Your task to perform on an android device: toggle show notifications on the lock screen Image 0: 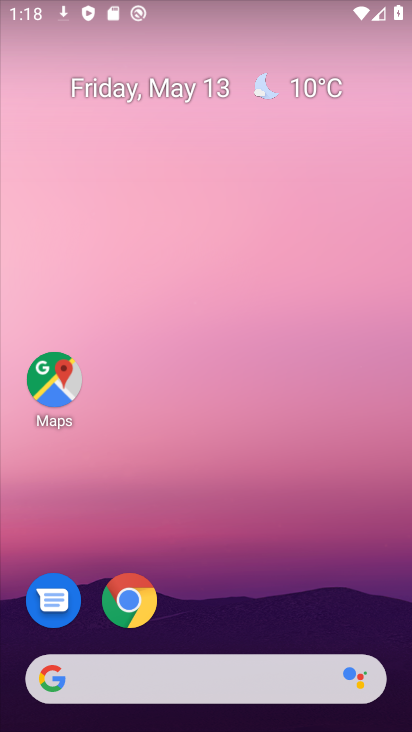
Step 0: drag from (209, 653) to (317, 117)
Your task to perform on an android device: toggle show notifications on the lock screen Image 1: 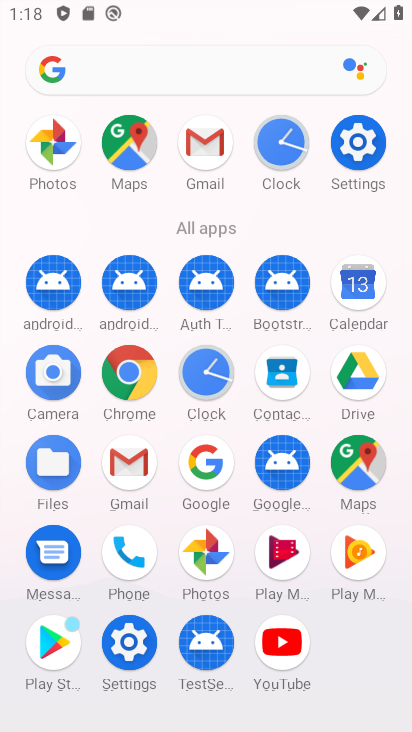
Step 1: click (124, 648)
Your task to perform on an android device: toggle show notifications on the lock screen Image 2: 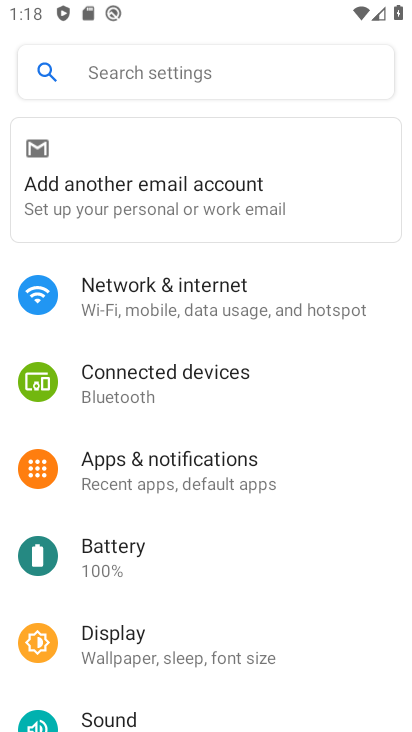
Step 2: click (221, 469)
Your task to perform on an android device: toggle show notifications on the lock screen Image 3: 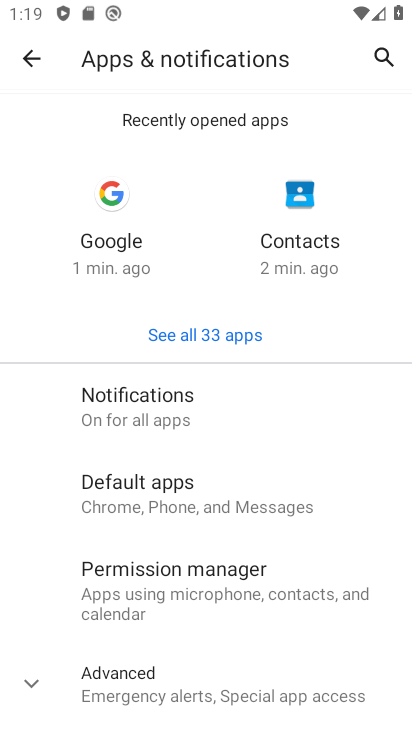
Step 3: drag from (255, 665) to (324, 429)
Your task to perform on an android device: toggle show notifications on the lock screen Image 4: 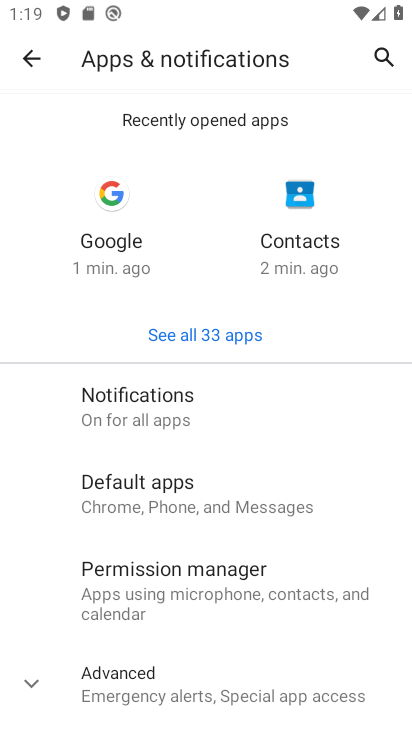
Step 4: click (207, 389)
Your task to perform on an android device: toggle show notifications on the lock screen Image 5: 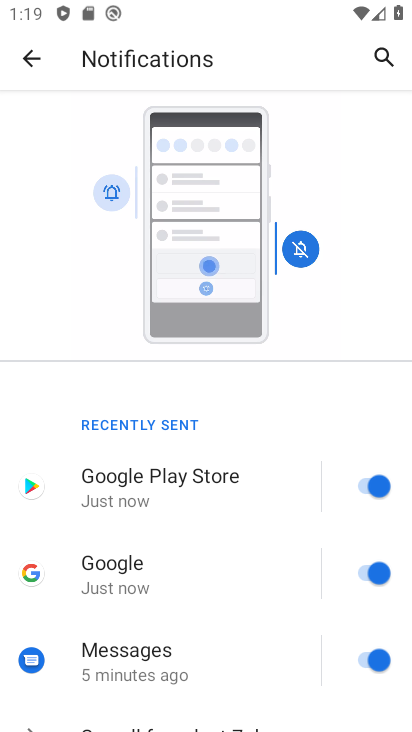
Step 5: drag from (191, 598) to (352, 197)
Your task to perform on an android device: toggle show notifications on the lock screen Image 6: 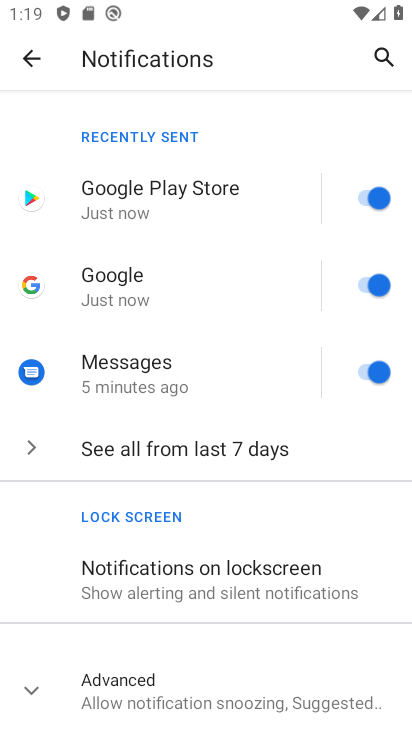
Step 6: click (225, 581)
Your task to perform on an android device: toggle show notifications on the lock screen Image 7: 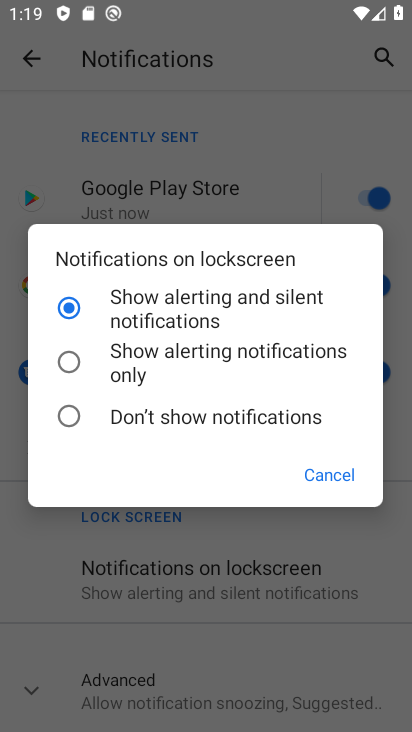
Step 7: task complete